Your task to perform on an android device: turn on translation in the chrome app Image 0: 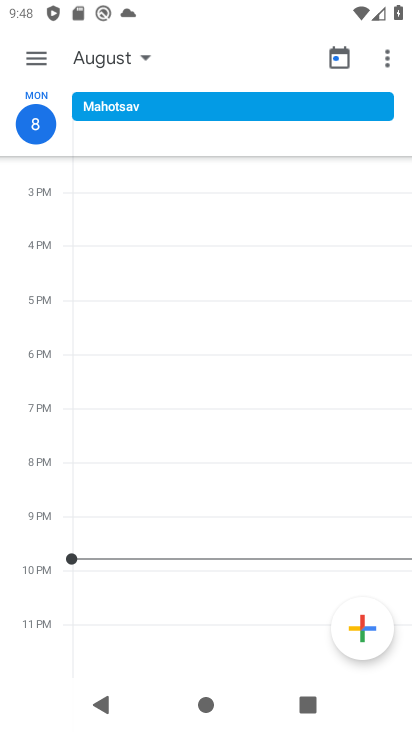
Step 0: press home button
Your task to perform on an android device: turn on translation in the chrome app Image 1: 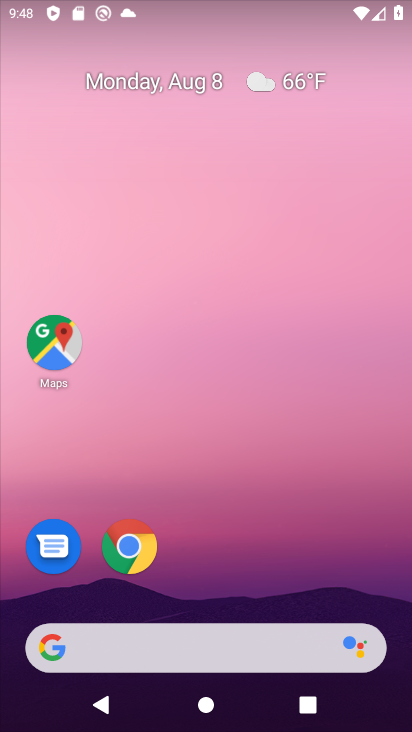
Step 1: drag from (243, 509) to (269, 149)
Your task to perform on an android device: turn on translation in the chrome app Image 2: 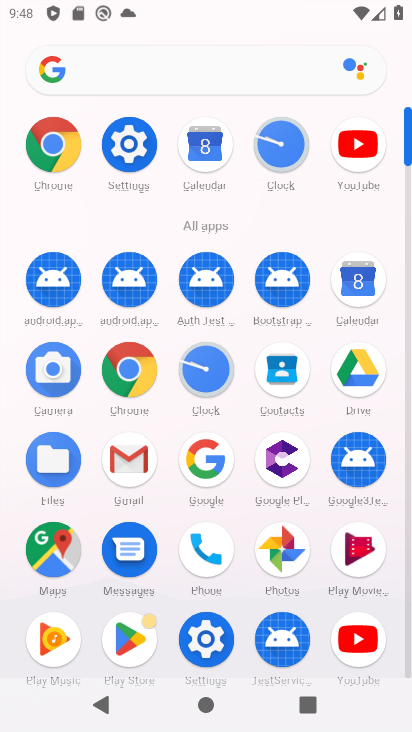
Step 2: click (139, 368)
Your task to perform on an android device: turn on translation in the chrome app Image 3: 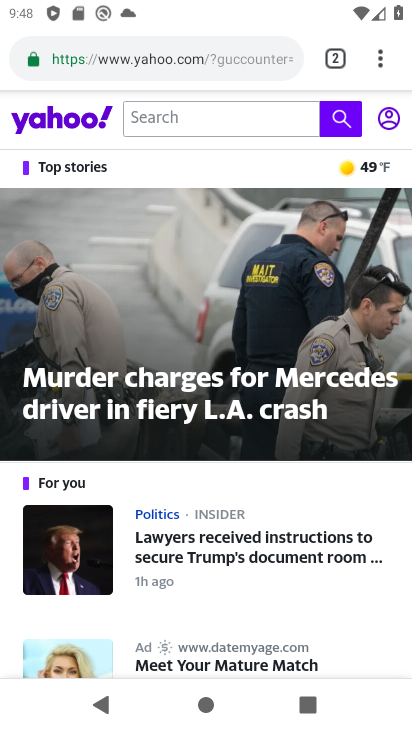
Step 3: task complete